Your task to perform on an android device: open sync settings in chrome Image 0: 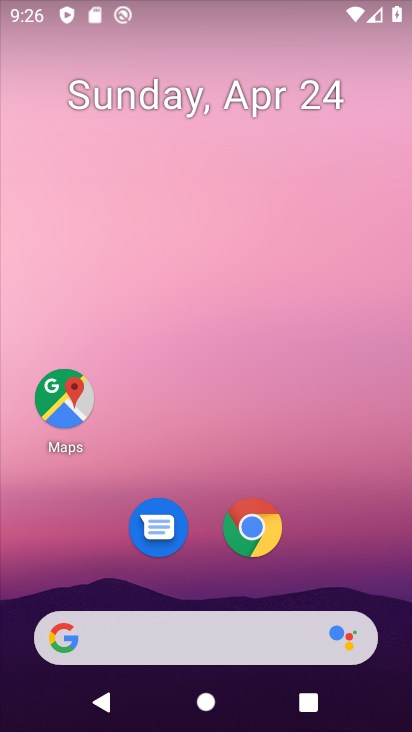
Step 0: click (259, 525)
Your task to perform on an android device: open sync settings in chrome Image 1: 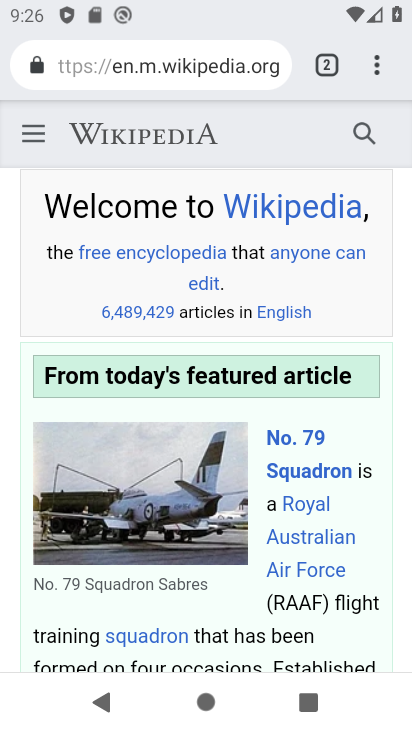
Step 1: drag from (377, 64) to (152, 572)
Your task to perform on an android device: open sync settings in chrome Image 2: 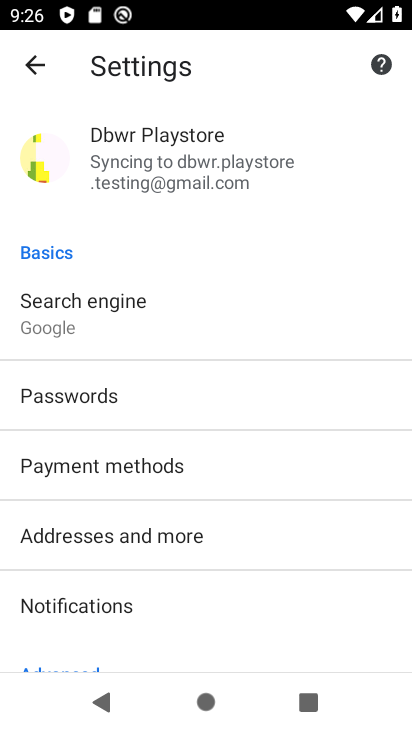
Step 2: click (117, 159)
Your task to perform on an android device: open sync settings in chrome Image 3: 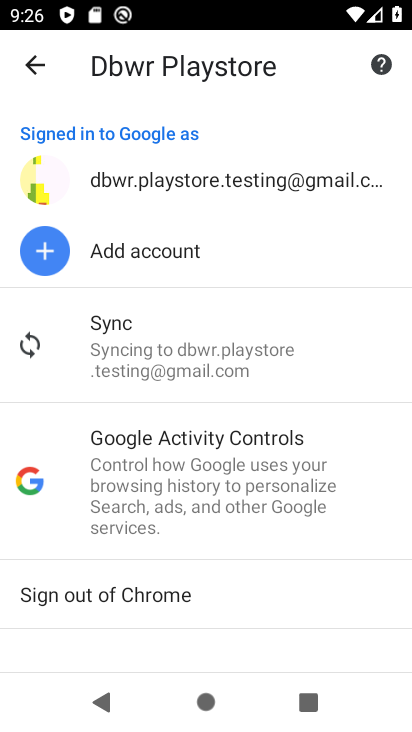
Step 3: click (204, 337)
Your task to perform on an android device: open sync settings in chrome Image 4: 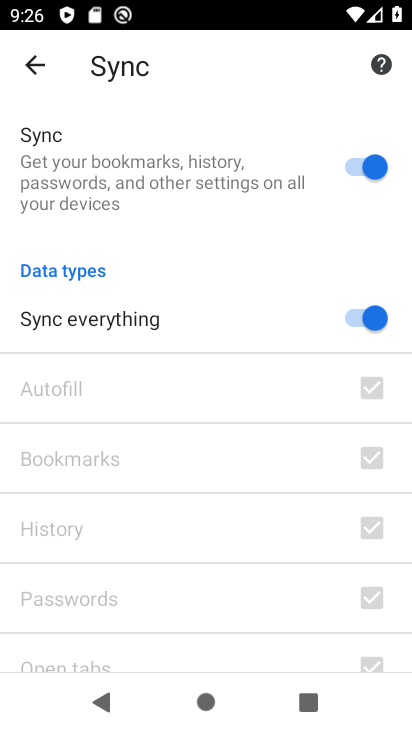
Step 4: task complete